Your task to perform on an android device: turn on translation in the chrome app Image 0: 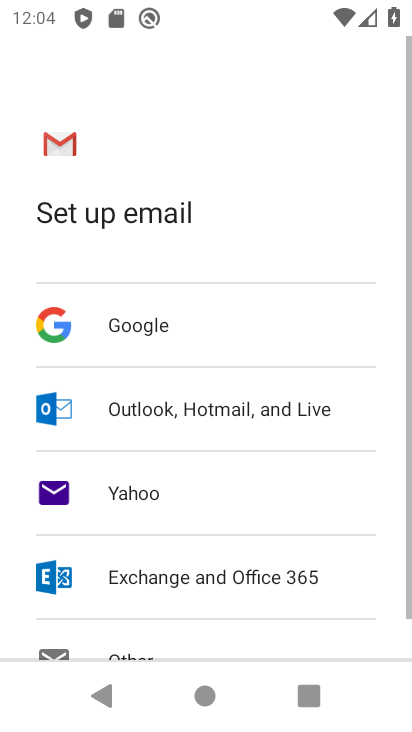
Step 0: press home button
Your task to perform on an android device: turn on translation in the chrome app Image 1: 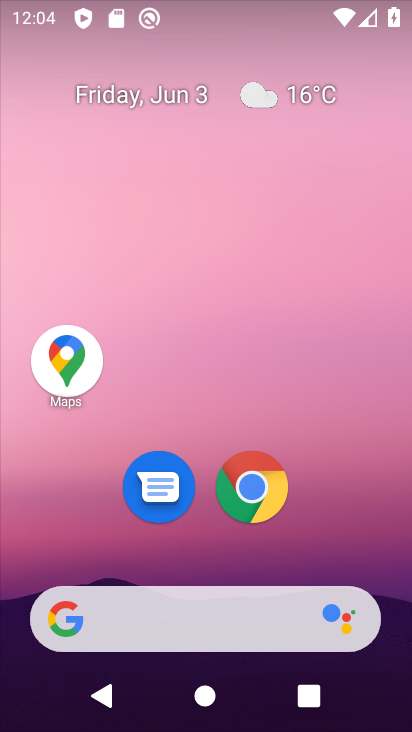
Step 1: click (248, 493)
Your task to perform on an android device: turn on translation in the chrome app Image 2: 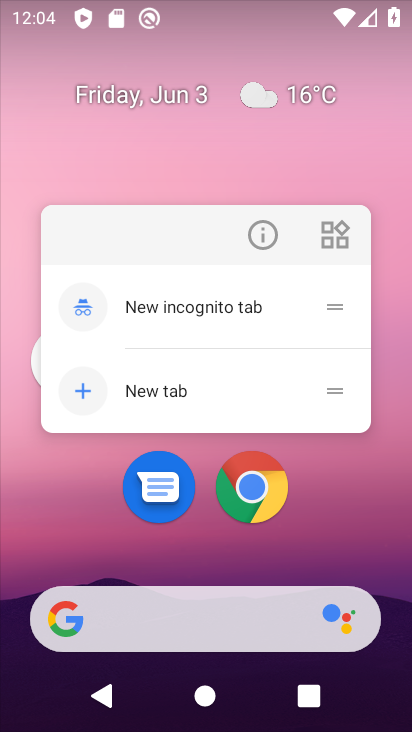
Step 2: click (248, 492)
Your task to perform on an android device: turn on translation in the chrome app Image 3: 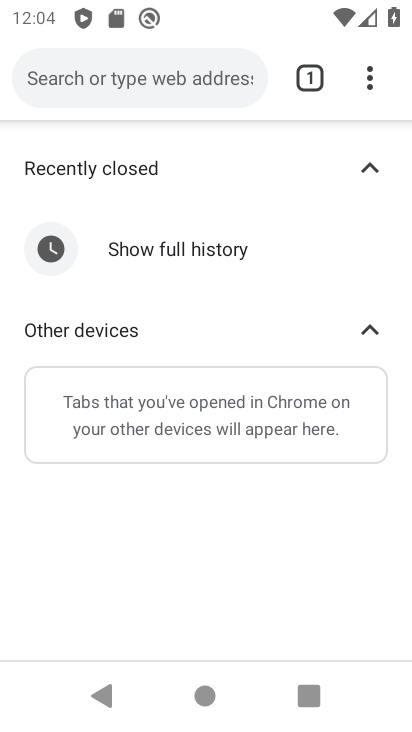
Step 3: click (376, 84)
Your task to perform on an android device: turn on translation in the chrome app Image 4: 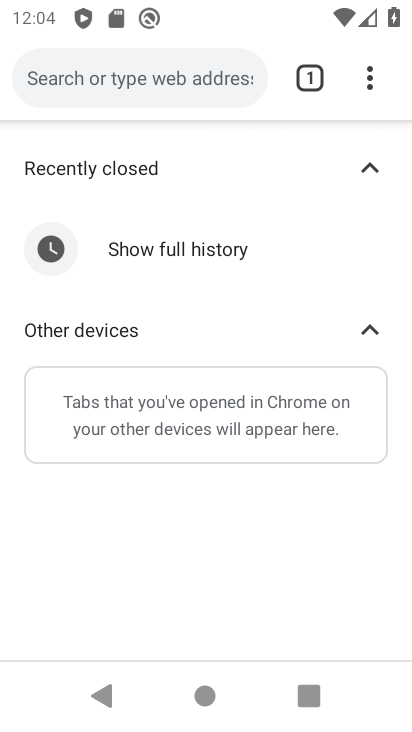
Step 4: drag from (374, 84) to (239, 526)
Your task to perform on an android device: turn on translation in the chrome app Image 5: 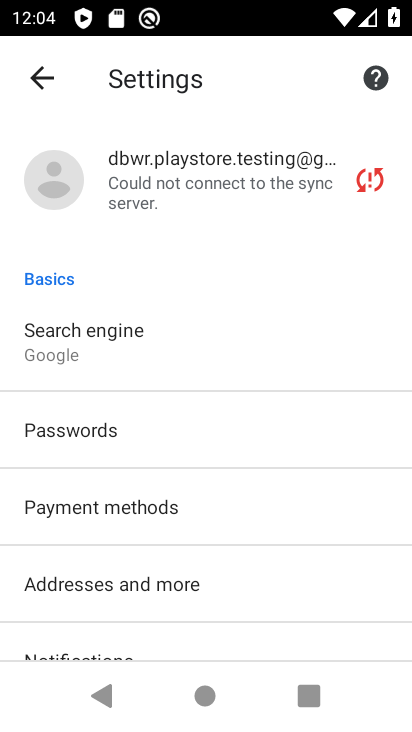
Step 5: drag from (358, 638) to (319, 91)
Your task to perform on an android device: turn on translation in the chrome app Image 6: 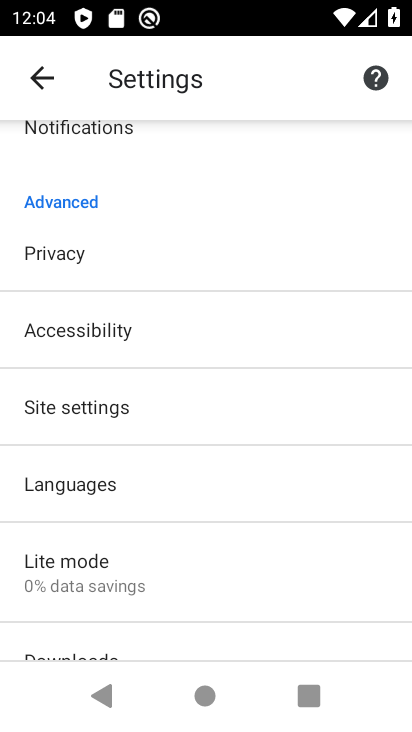
Step 6: click (93, 500)
Your task to perform on an android device: turn on translation in the chrome app Image 7: 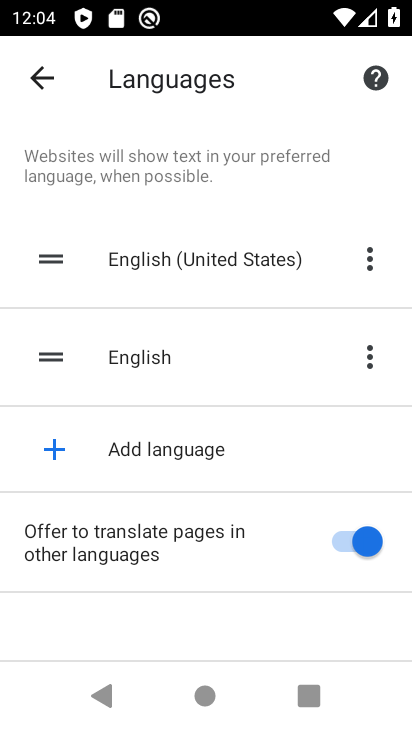
Step 7: task complete